Your task to perform on an android device: add a contact Image 0: 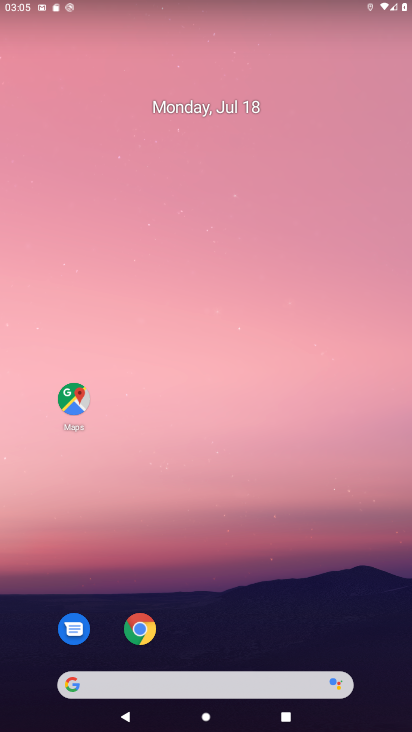
Step 0: drag from (320, 607) to (316, 130)
Your task to perform on an android device: add a contact Image 1: 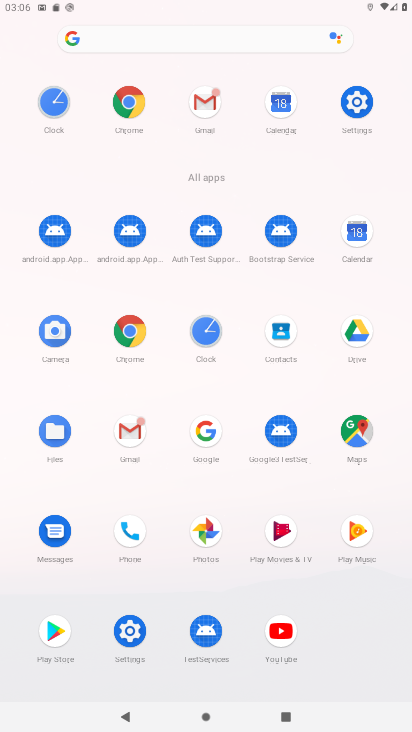
Step 1: click (291, 332)
Your task to perform on an android device: add a contact Image 2: 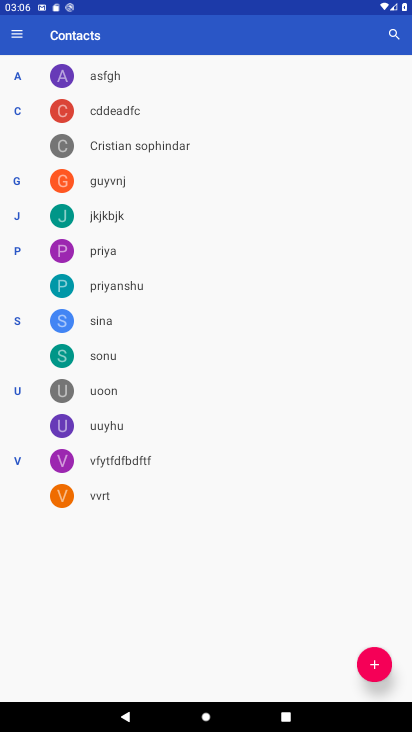
Step 2: click (376, 666)
Your task to perform on an android device: add a contact Image 3: 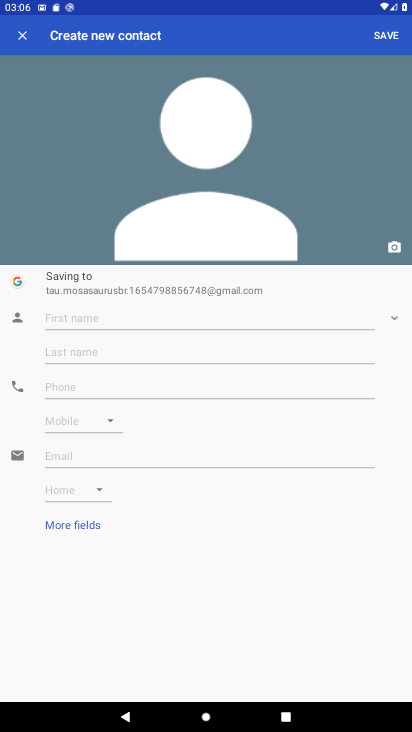
Step 3: click (332, 316)
Your task to perform on an android device: add a contact Image 4: 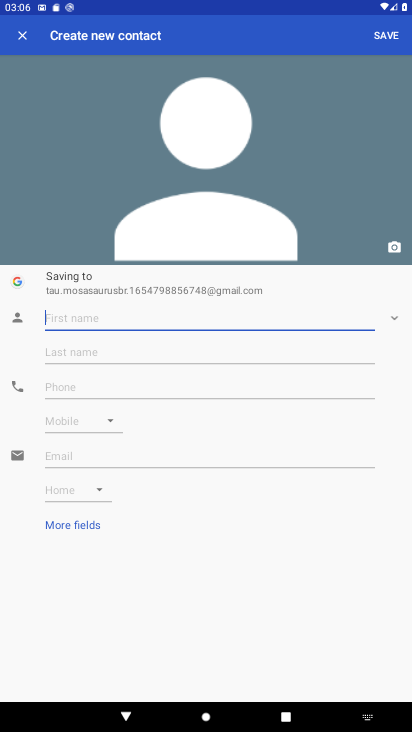
Step 4: type "lololo"
Your task to perform on an android device: add a contact Image 5: 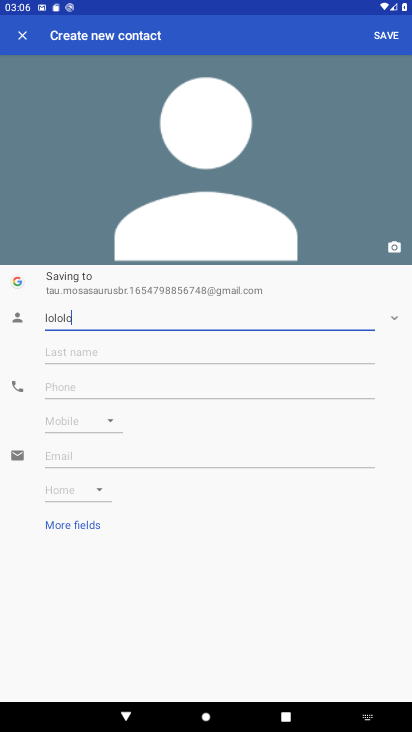
Step 5: click (221, 389)
Your task to perform on an android device: add a contact Image 6: 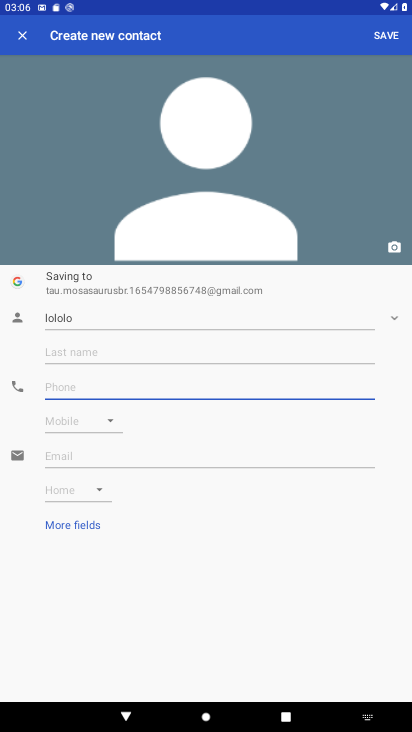
Step 6: type "1334556788"
Your task to perform on an android device: add a contact Image 7: 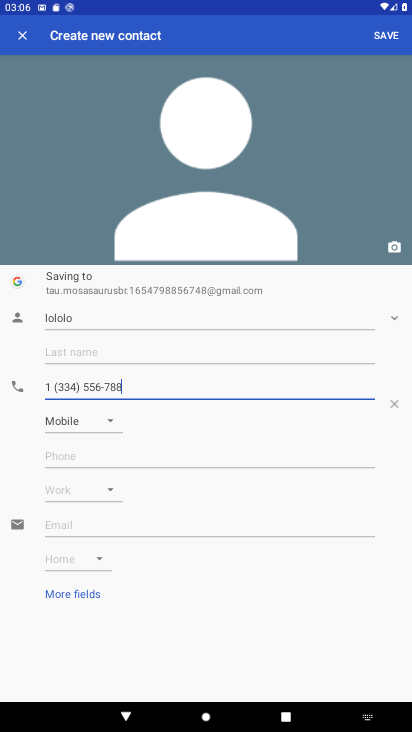
Step 7: click (391, 34)
Your task to perform on an android device: add a contact Image 8: 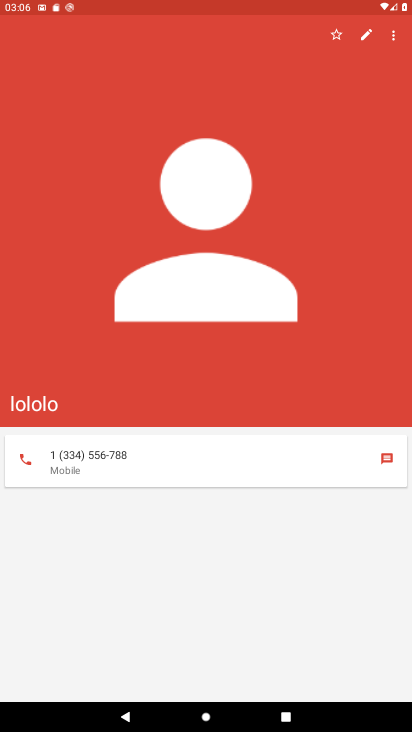
Step 8: task complete